Your task to perform on an android device: star an email in the gmail app Image 0: 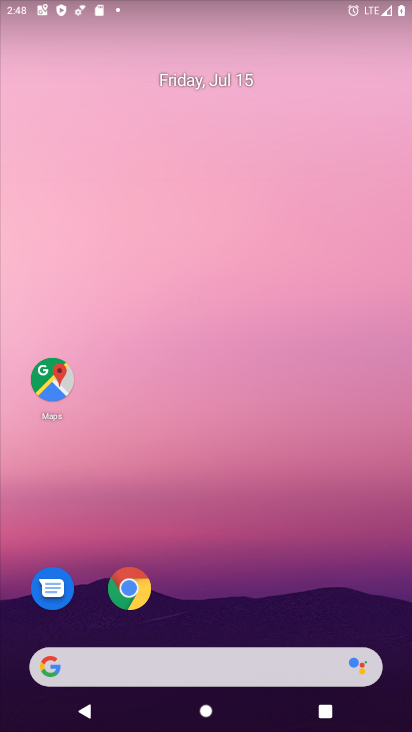
Step 0: drag from (203, 672) to (228, 136)
Your task to perform on an android device: star an email in the gmail app Image 1: 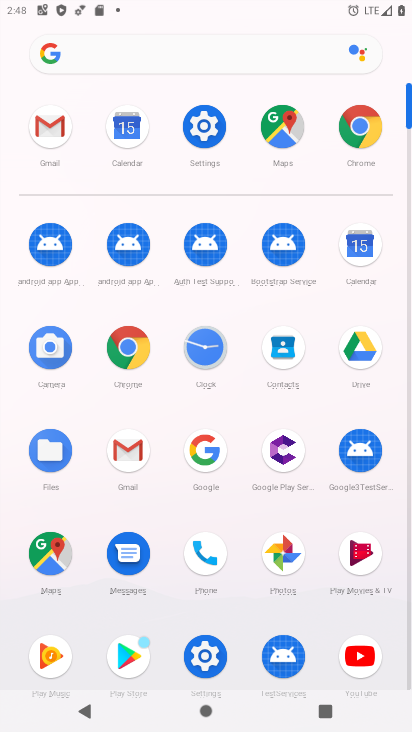
Step 1: click (49, 125)
Your task to perform on an android device: star an email in the gmail app Image 2: 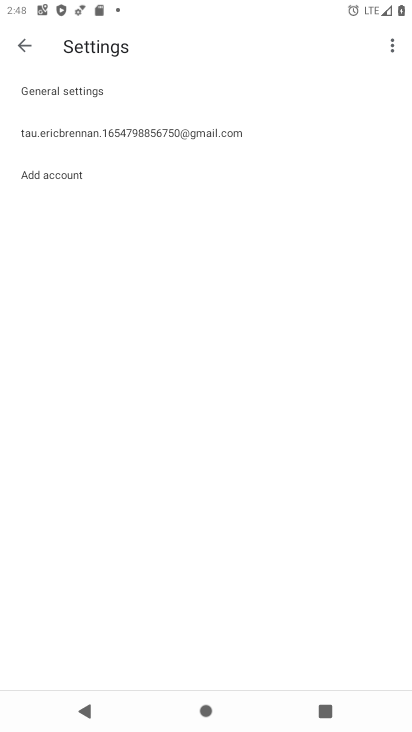
Step 2: press back button
Your task to perform on an android device: star an email in the gmail app Image 3: 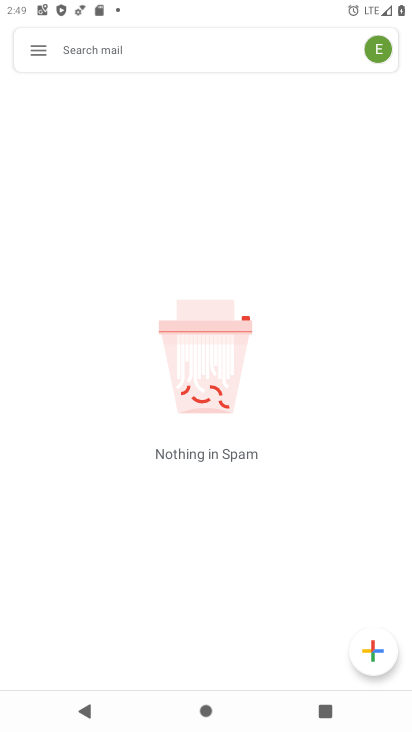
Step 3: click (36, 55)
Your task to perform on an android device: star an email in the gmail app Image 4: 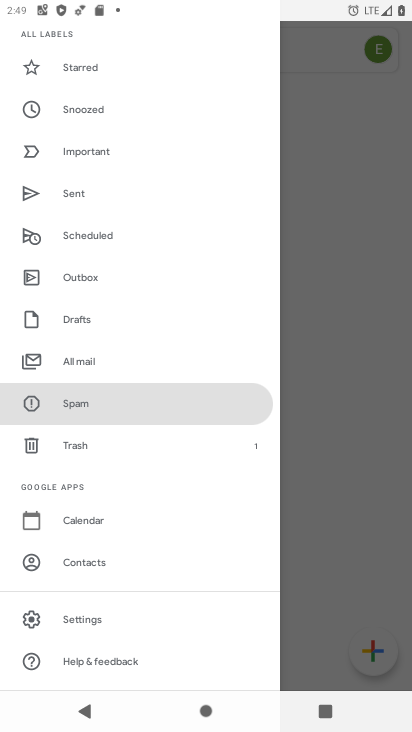
Step 4: click (68, 366)
Your task to perform on an android device: star an email in the gmail app Image 5: 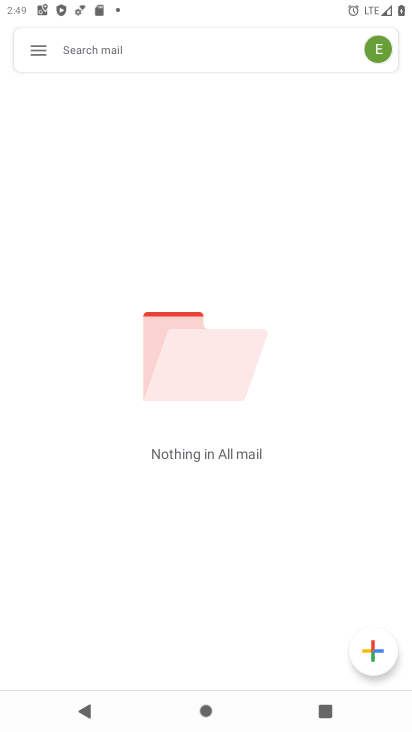
Step 5: click (30, 43)
Your task to perform on an android device: star an email in the gmail app Image 6: 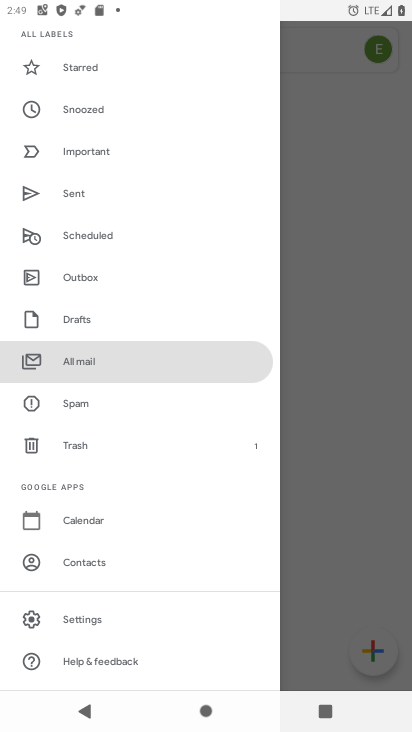
Step 6: drag from (134, 210) to (141, 456)
Your task to perform on an android device: star an email in the gmail app Image 7: 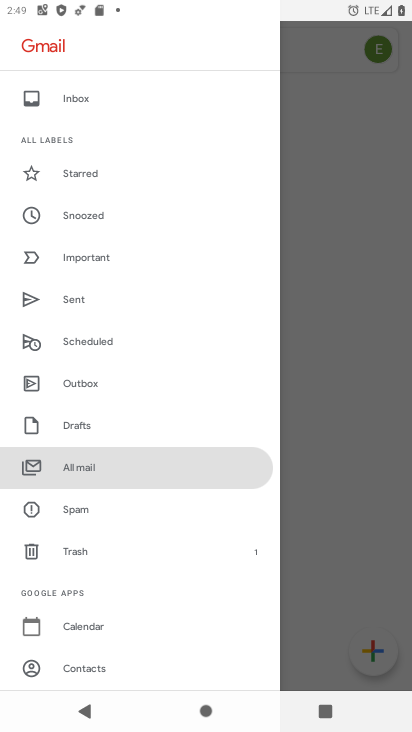
Step 7: drag from (92, 155) to (143, 313)
Your task to perform on an android device: star an email in the gmail app Image 8: 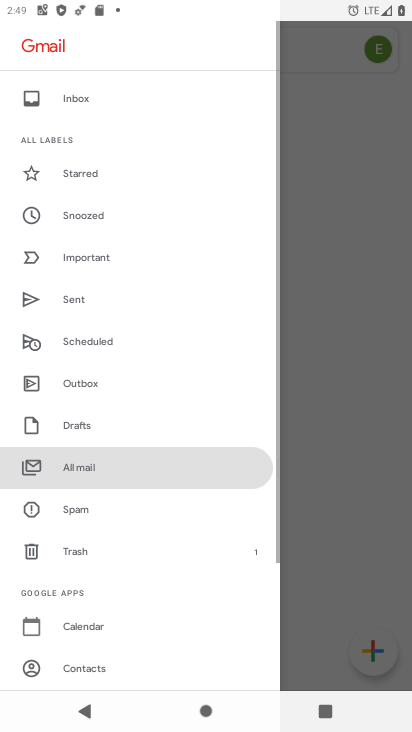
Step 8: click (77, 96)
Your task to perform on an android device: star an email in the gmail app Image 9: 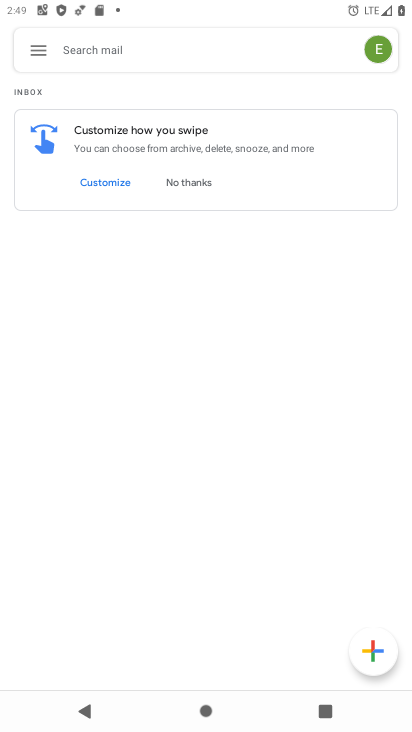
Step 9: click (26, 51)
Your task to perform on an android device: star an email in the gmail app Image 10: 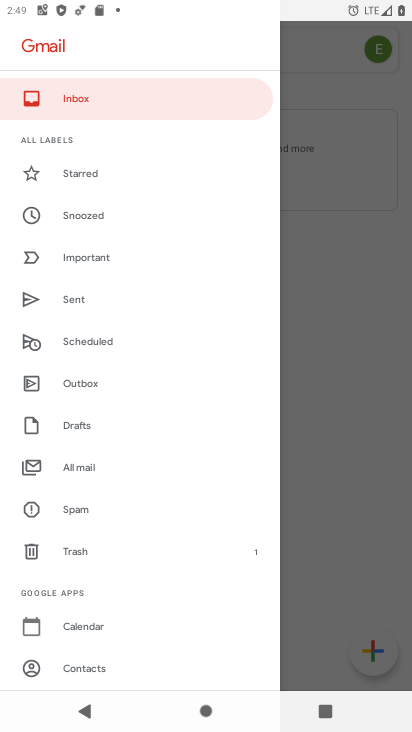
Step 10: click (82, 178)
Your task to perform on an android device: star an email in the gmail app Image 11: 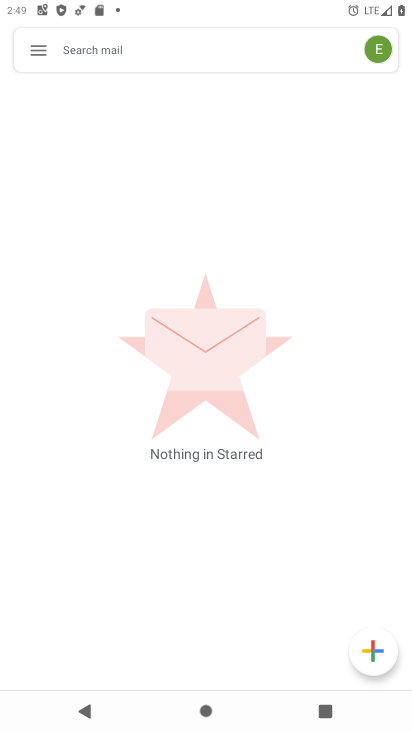
Step 11: click (38, 57)
Your task to perform on an android device: star an email in the gmail app Image 12: 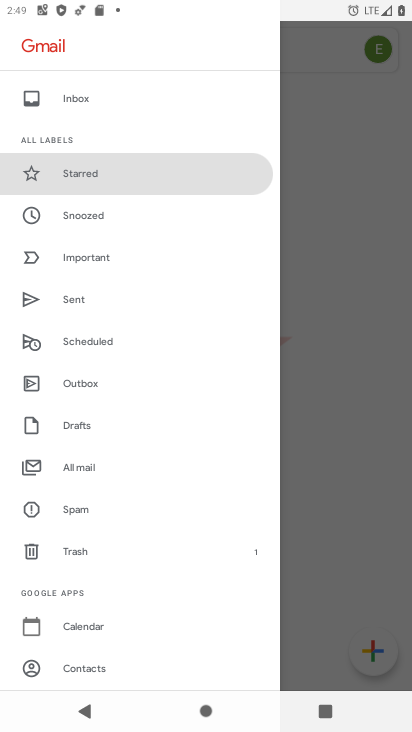
Step 12: click (80, 210)
Your task to perform on an android device: star an email in the gmail app Image 13: 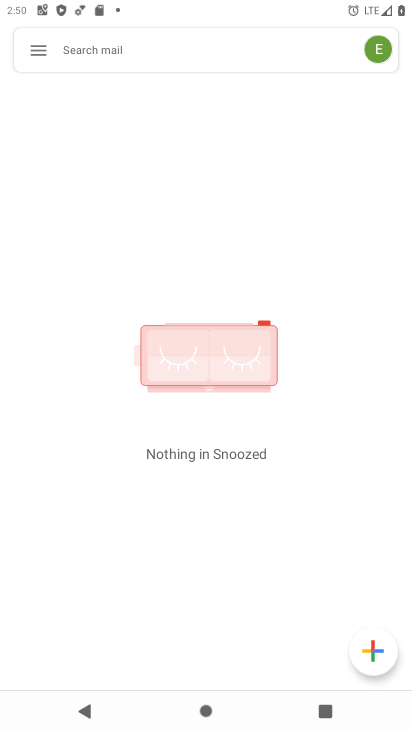
Step 13: click (39, 55)
Your task to perform on an android device: star an email in the gmail app Image 14: 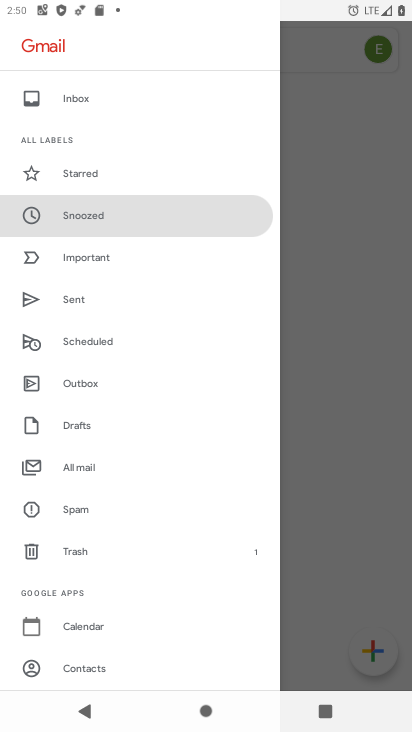
Step 14: click (75, 255)
Your task to perform on an android device: star an email in the gmail app Image 15: 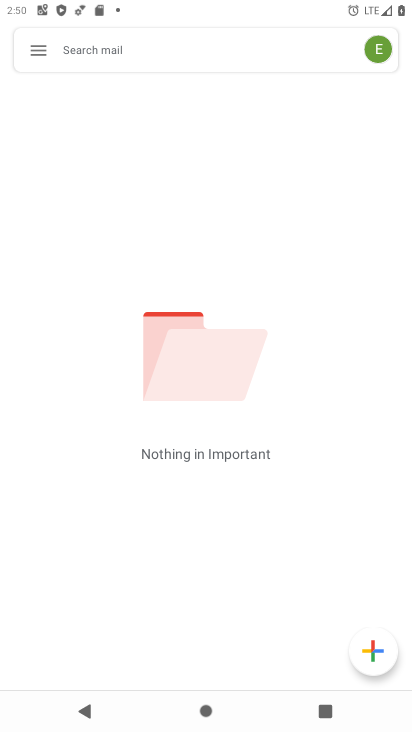
Step 15: click (35, 56)
Your task to perform on an android device: star an email in the gmail app Image 16: 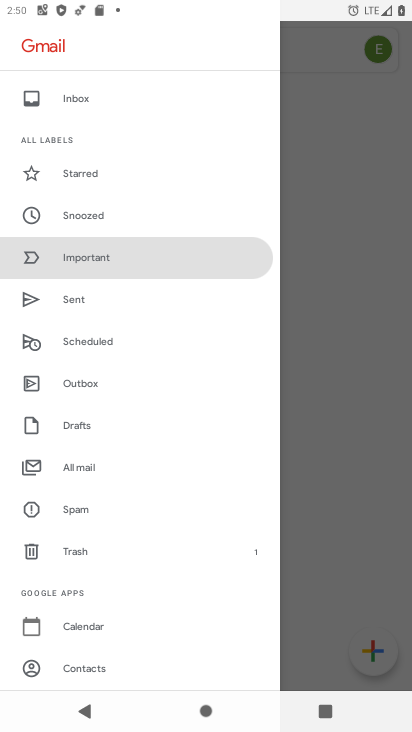
Step 16: click (74, 306)
Your task to perform on an android device: star an email in the gmail app Image 17: 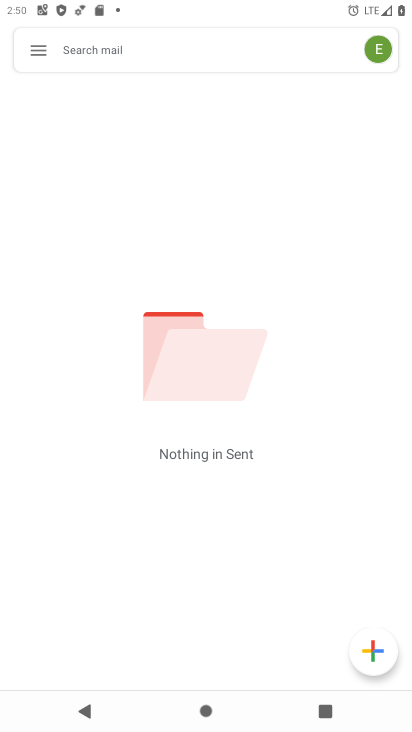
Step 17: click (42, 44)
Your task to perform on an android device: star an email in the gmail app Image 18: 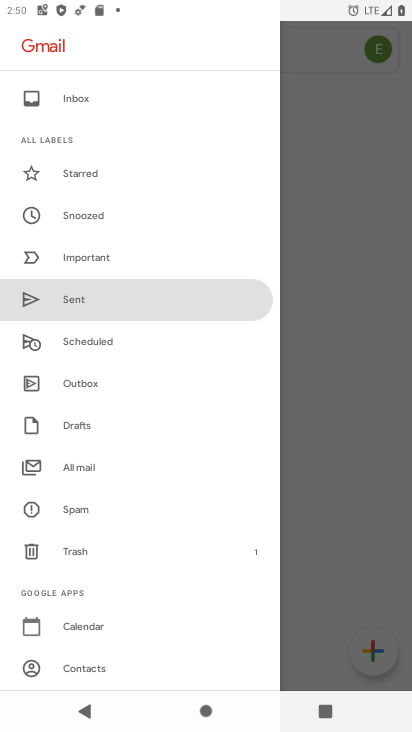
Step 18: click (93, 341)
Your task to perform on an android device: star an email in the gmail app Image 19: 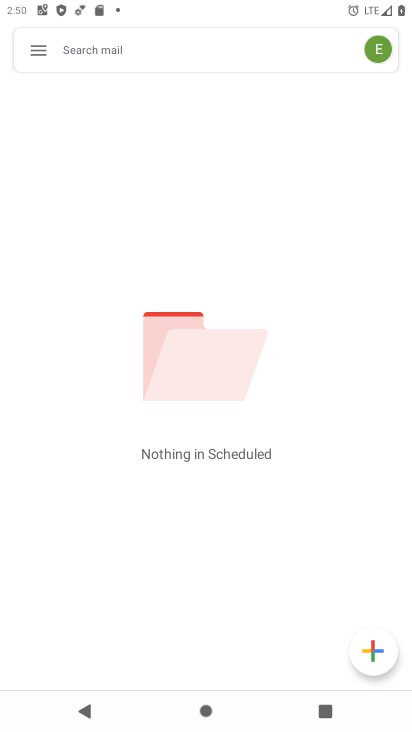
Step 19: click (32, 51)
Your task to perform on an android device: star an email in the gmail app Image 20: 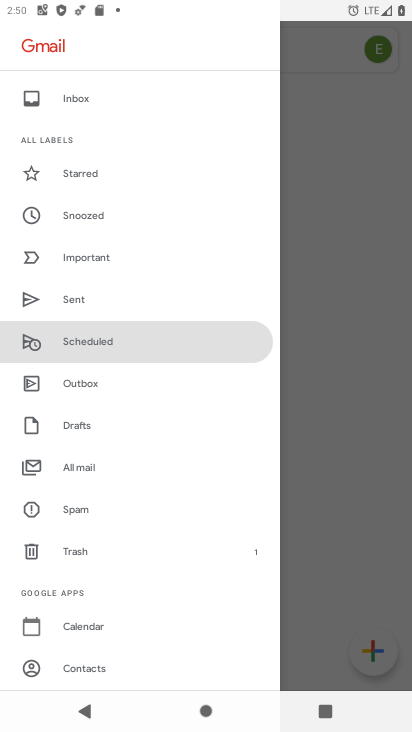
Step 20: click (80, 381)
Your task to perform on an android device: star an email in the gmail app Image 21: 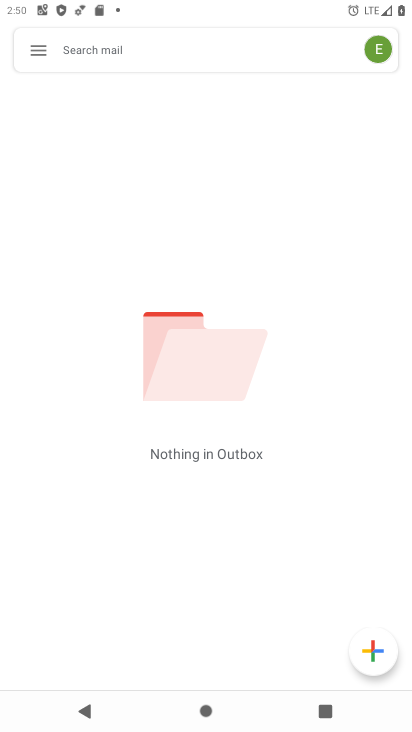
Step 21: click (33, 49)
Your task to perform on an android device: star an email in the gmail app Image 22: 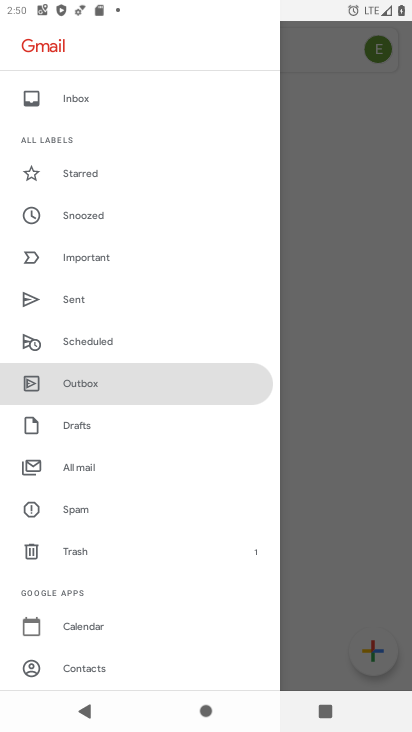
Step 22: click (72, 416)
Your task to perform on an android device: star an email in the gmail app Image 23: 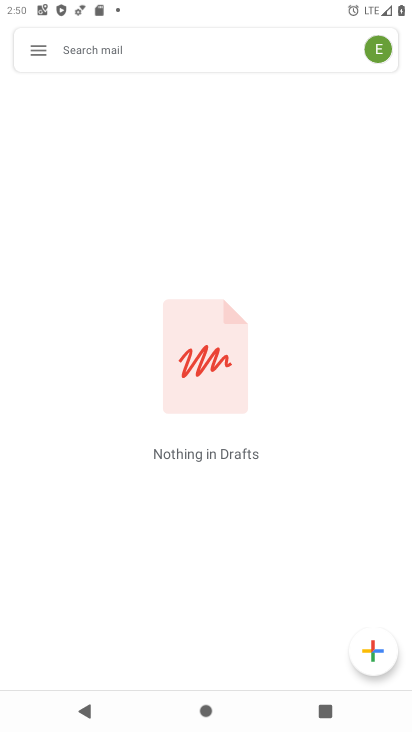
Step 23: click (35, 52)
Your task to perform on an android device: star an email in the gmail app Image 24: 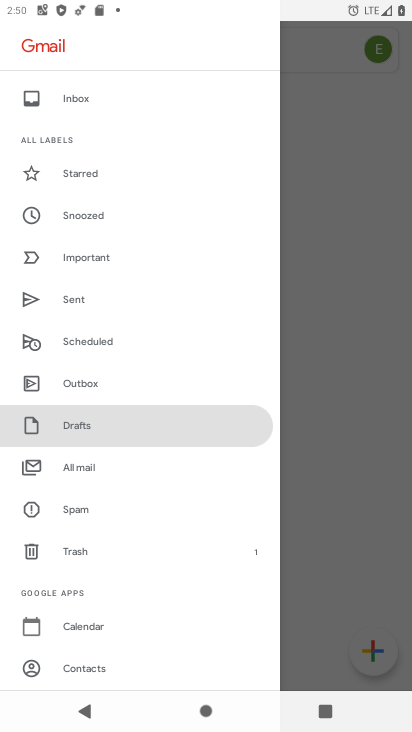
Step 24: click (69, 465)
Your task to perform on an android device: star an email in the gmail app Image 25: 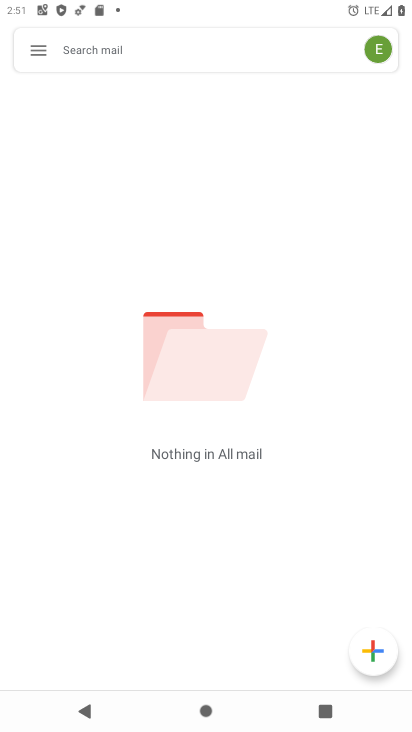
Step 25: task complete